Your task to perform on an android device: toggle improve location accuracy Image 0: 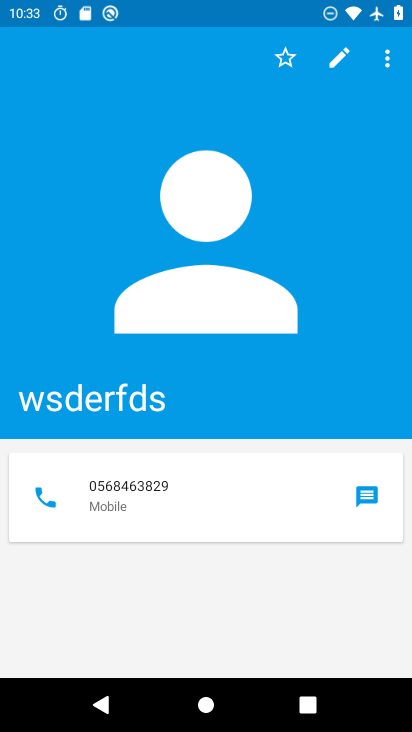
Step 0: press home button
Your task to perform on an android device: toggle improve location accuracy Image 1: 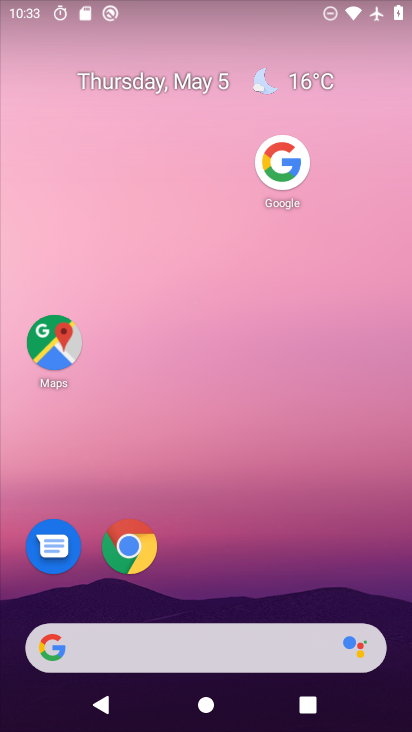
Step 1: drag from (162, 642) to (338, 60)
Your task to perform on an android device: toggle improve location accuracy Image 2: 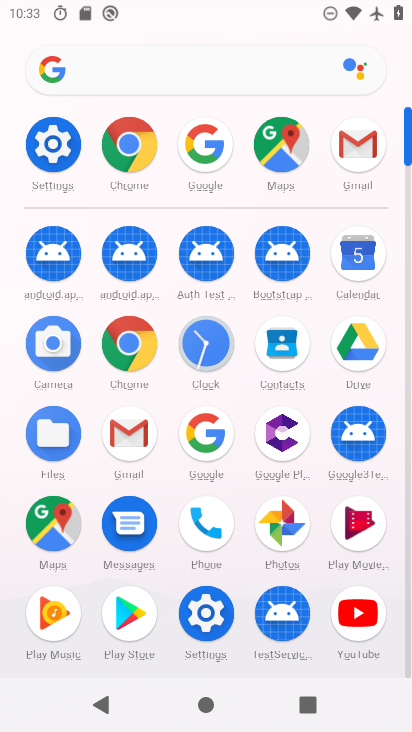
Step 2: click (50, 151)
Your task to perform on an android device: toggle improve location accuracy Image 3: 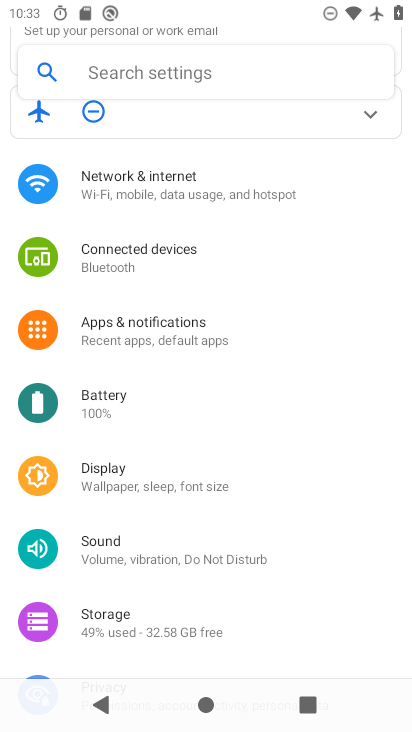
Step 3: drag from (172, 589) to (347, 221)
Your task to perform on an android device: toggle improve location accuracy Image 4: 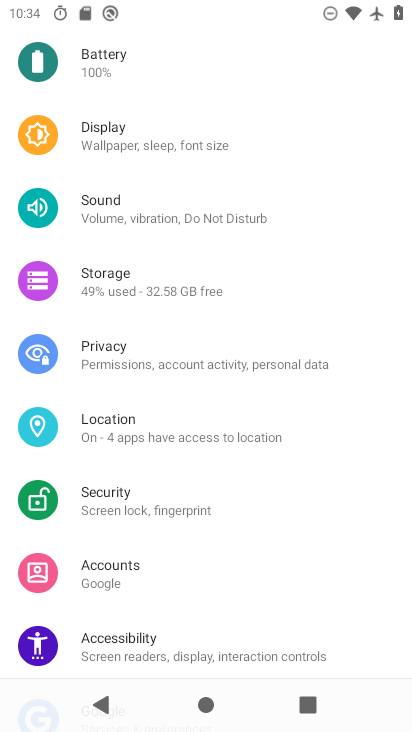
Step 4: click (115, 424)
Your task to perform on an android device: toggle improve location accuracy Image 5: 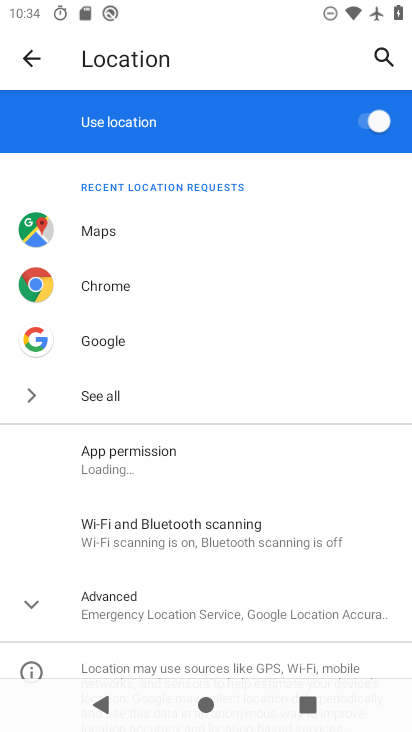
Step 5: drag from (205, 506) to (326, 190)
Your task to perform on an android device: toggle improve location accuracy Image 6: 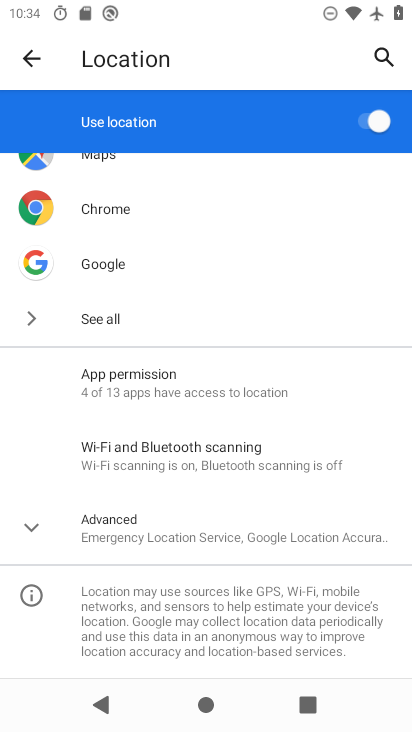
Step 6: click (137, 532)
Your task to perform on an android device: toggle improve location accuracy Image 7: 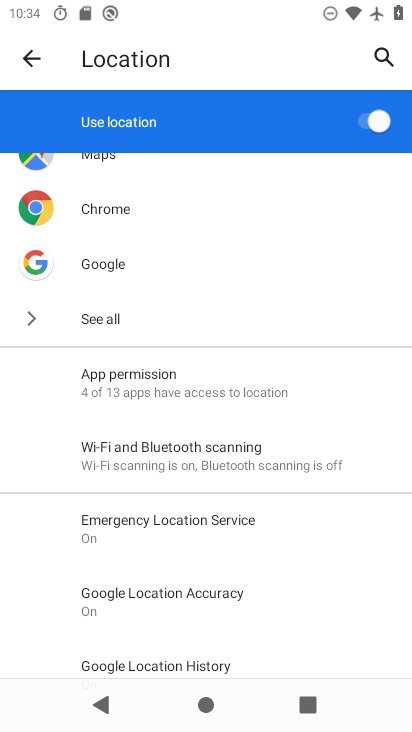
Step 7: drag from (301, 561) to (407, 240)
Your task to perform on an android device: toggle improve location accuracy Image 8: 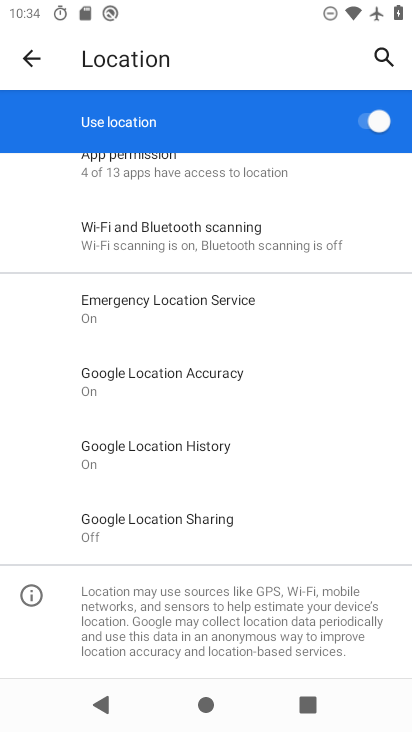
Step 8: click (197, 375)
Your task to perform on an android device: toggle improve location accuracy Image 9: 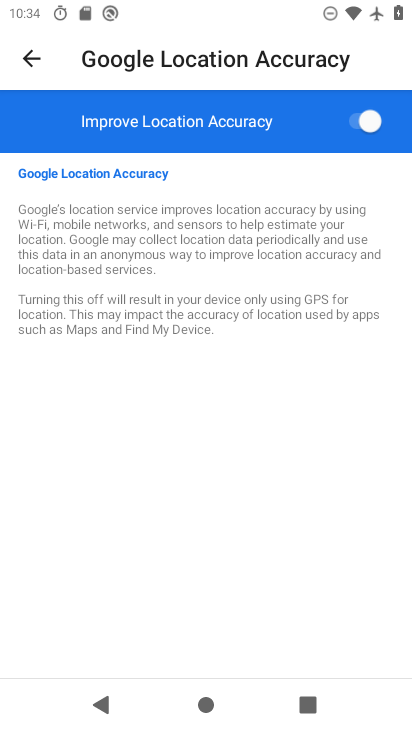
Step 9: click (352, 122)
Your task to perform on an android device: toggle improve location accuracy Image 10: 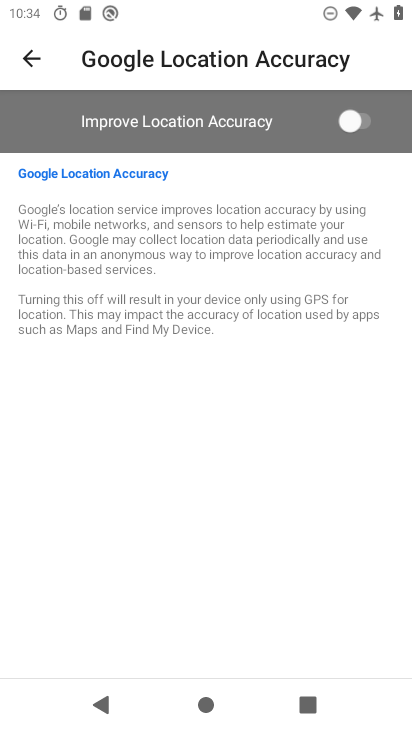
Step 10: task complete